Your task to perform on an android device: turn off translation in the chrome app Image 0: 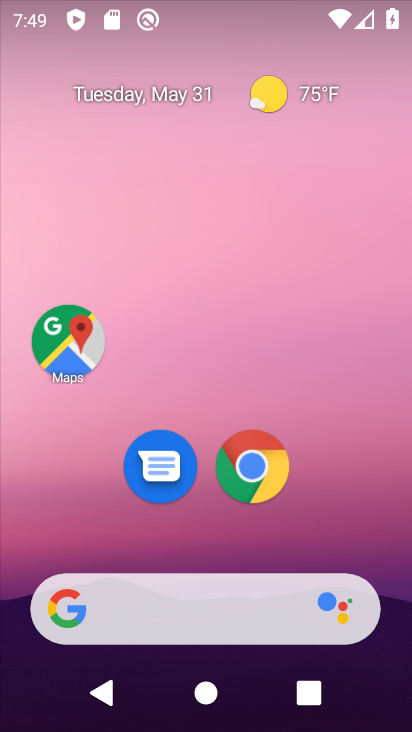
Step 0: drag from (193, 535) to (277, 132)
Your task to perform on an android device: turn off translation in the chrome app Image 1: 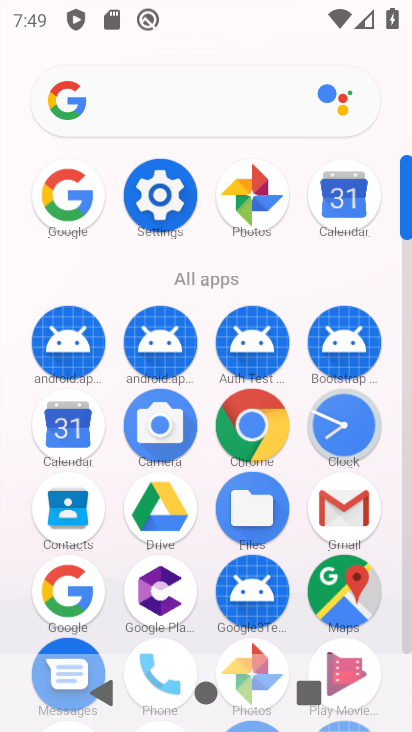
Step 1: click (250, 423)
Your task to perform on an android device: turn off translation in the chrome app Image 2: 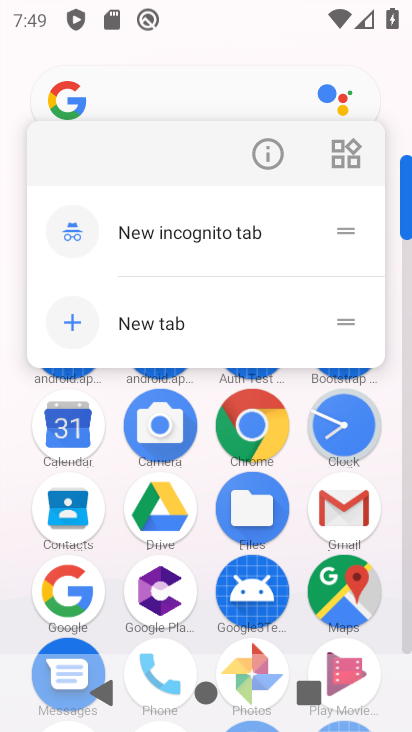
Step 2: click (259, 155)
Your task to perform on an android device: turn off translation in the chrome app Image 3: 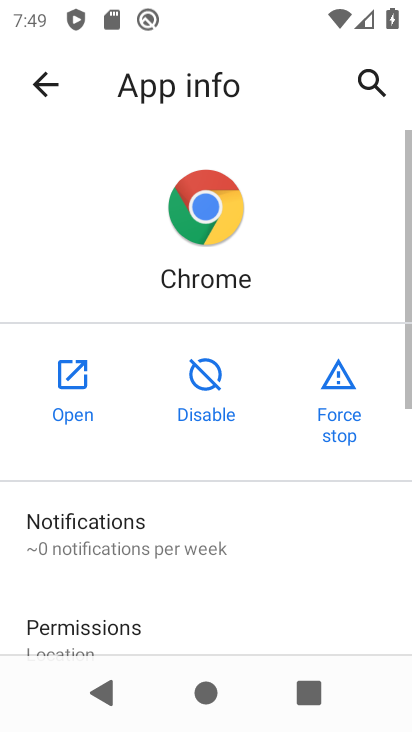
Step 3: click (87, 384)
Your task to perform on an android device: turn off translation in the chrome app Image 4: 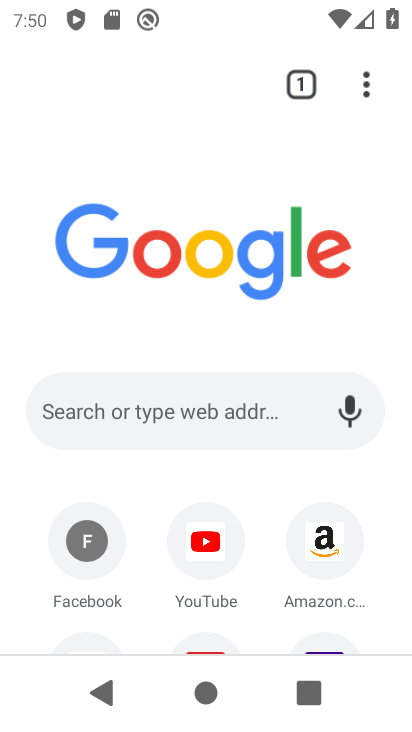
Step 4: drag from (247, 503) to (256, 150)
Your task to perform on an android device: turn off translation in the chrome app Image 5: 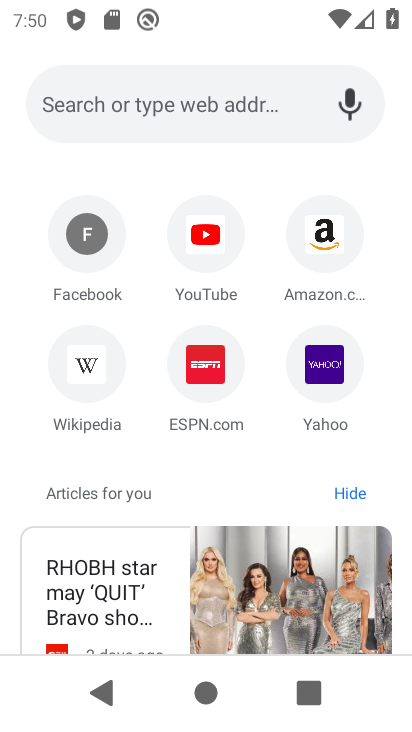
Step 5: drag from (242, 156) to (259, 578)
Your task to perform on an android device: turn off translation in the chrome app Image 6: 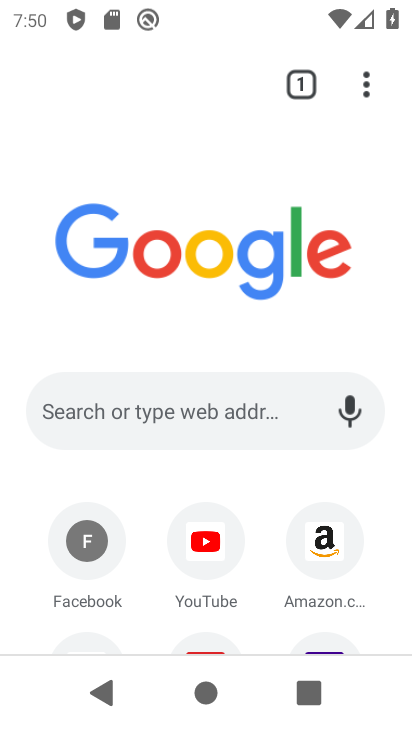
Step 6: drag from (268, 182) to (292, 508)
Your task to perform on an android device: turn off translation in the chrome app Image 7: 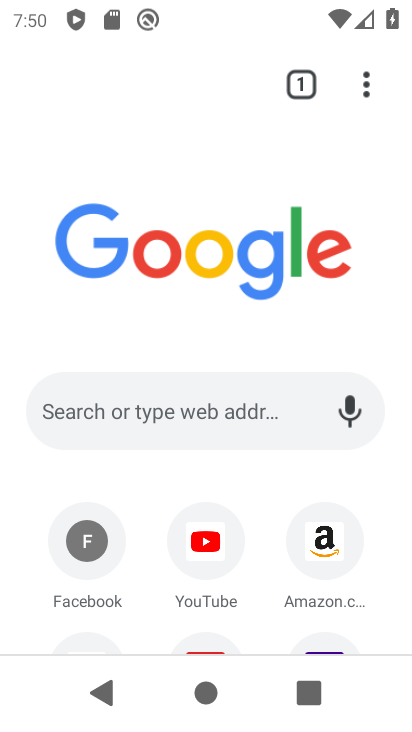
Step 7: drag from (361, 74) to (88, 520)
Your task to perform on an android device: turn off translation in the chrome app Image 8: 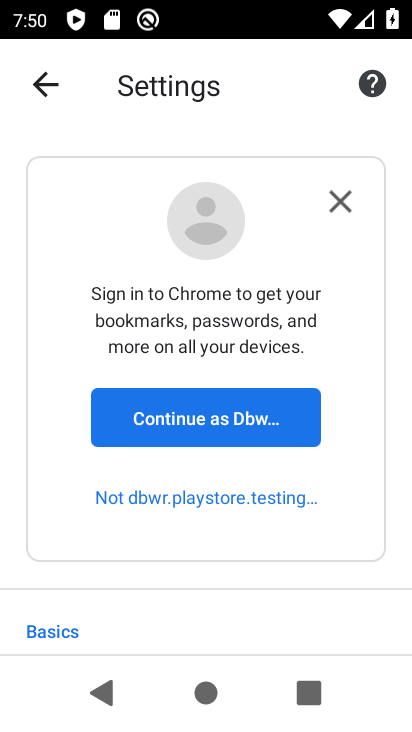
Step 8: drag from (275, 624) to (261, 240)
Your task to perform on an android device: turn off translation in the chrome app Image 9: 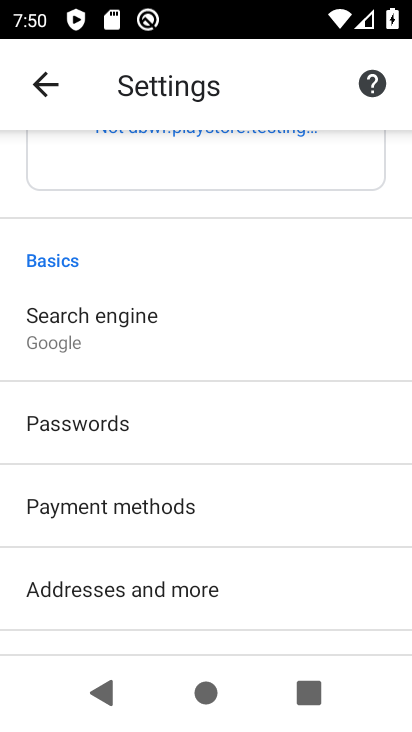
Step 9: drag from (168, 572) to (236, 190)
Your task to perform on an android device: turn off translation in the chrome app Image 10: 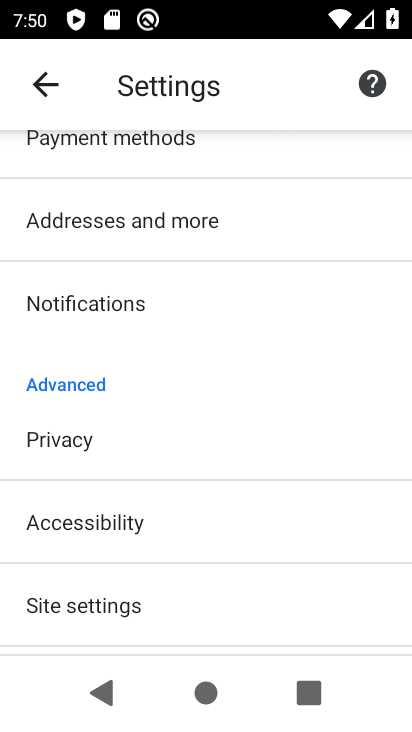
Step 10: click (131, 599)
Your task to perform on an android device: turn off translation in the chrome app Image 11: 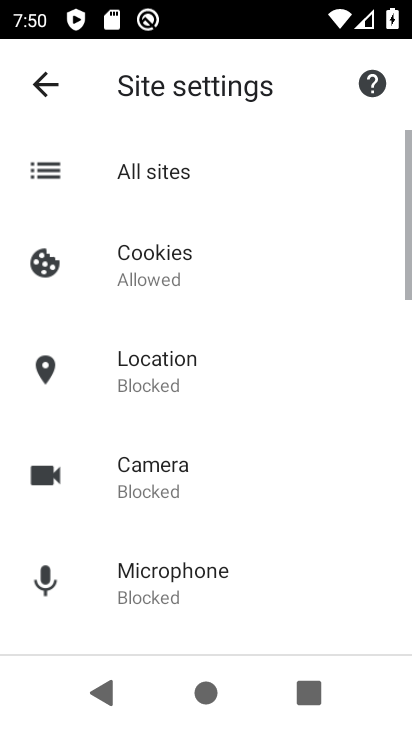
Step 11: click (44, 75)
Your task to perform on an android device: turn off translation in the chrome app Image 12: 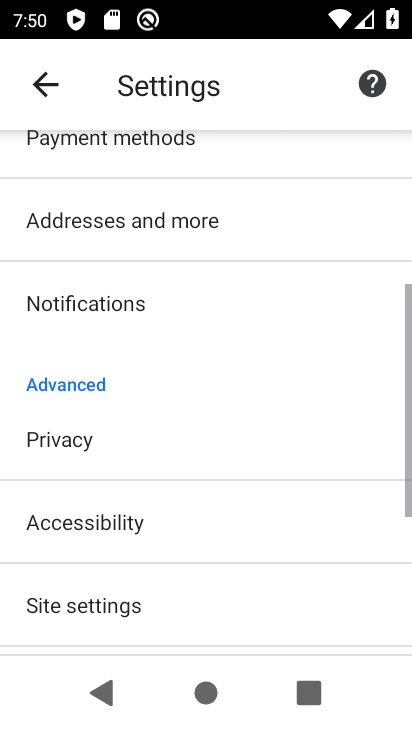
Step 12: drag from (233, 609) to (324, 225)
Your task to perform on an android device: turn off translation in the chrome app Image 13: 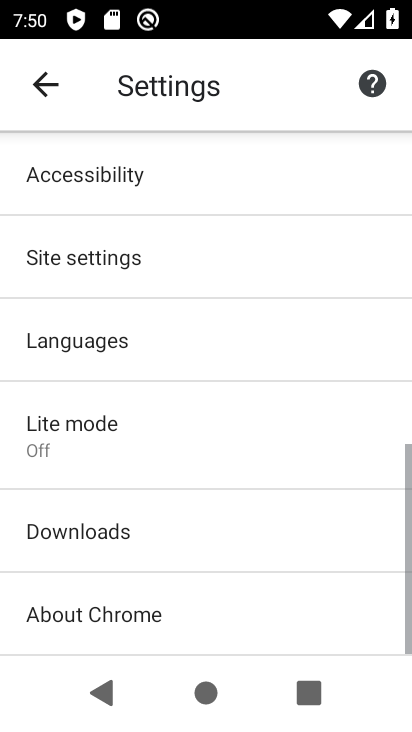
Step 13: click (22, 306)
Your task to perform on an android device: turn off translation in the chrome app Image 14: 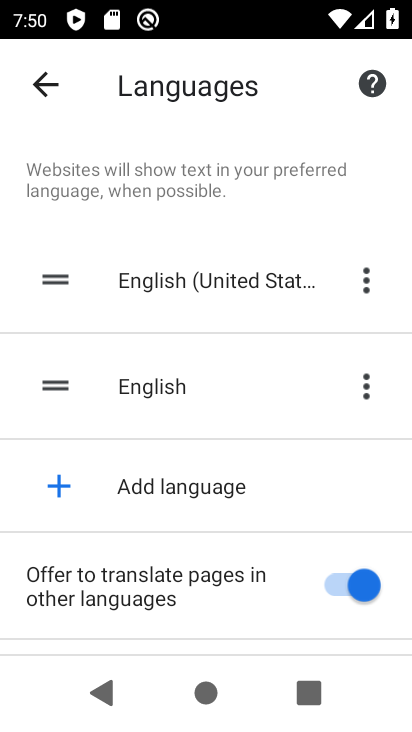
Step 14: drag from (273, 574) to (357, 139)
Your task to perform on an android device: turn off translation in the chrome app Image 15: 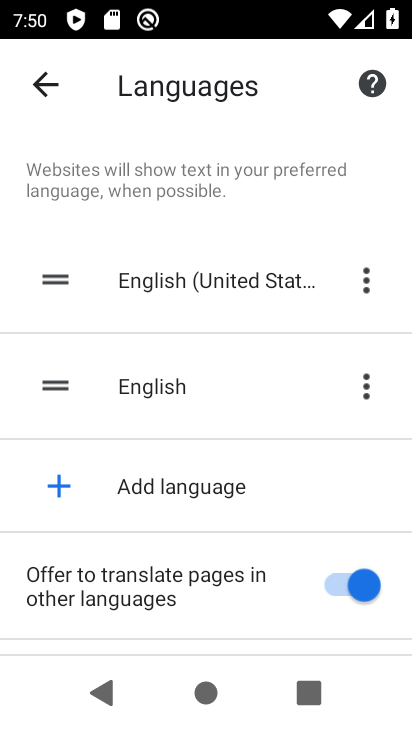
Step 15: click (342, 587)
Your task to perform on an android device: turn off translation in the chrome app Image 16: 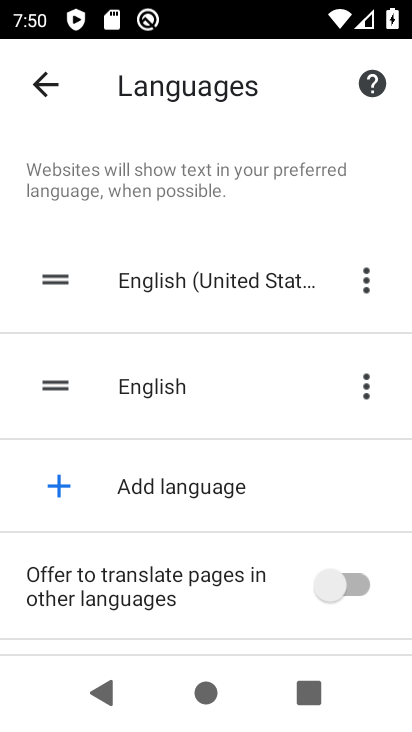
Step 16: task complete